Your task to perform on an android device: Open location settings Image 0: 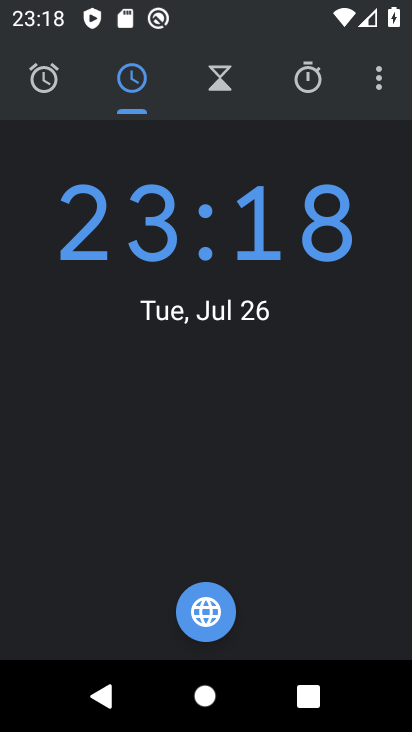
Step 0: press back button
Your task to perform on an android device: Open location settings Image 1: 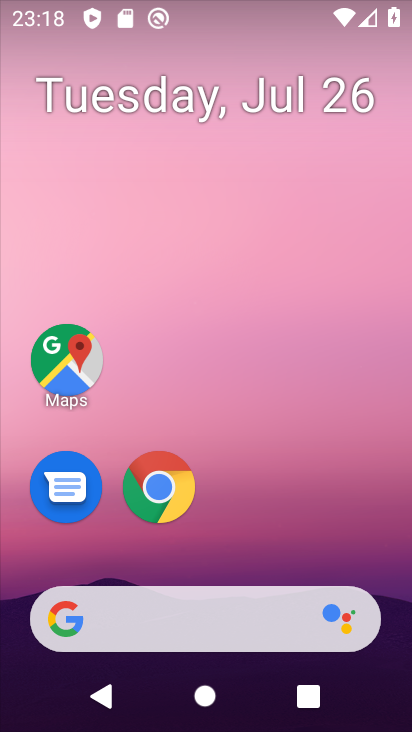
Step 1: drag from (258, 545) to (306, 12)
Your task to perform on an android device: Open location settings Image 2: 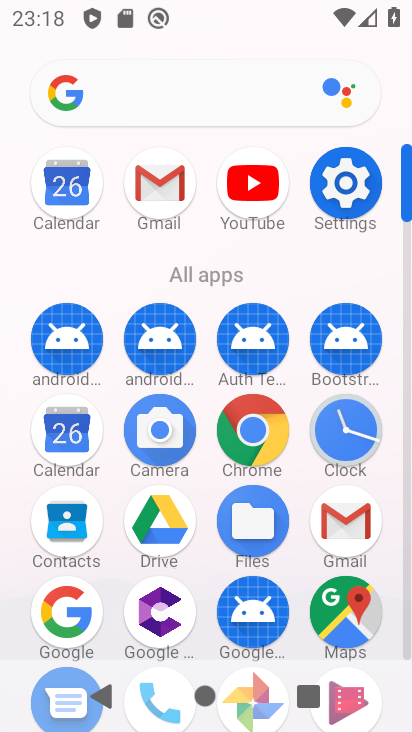
Step 2: click (327, 179)
Your task to perform on an android device: Open location settings Image 3: 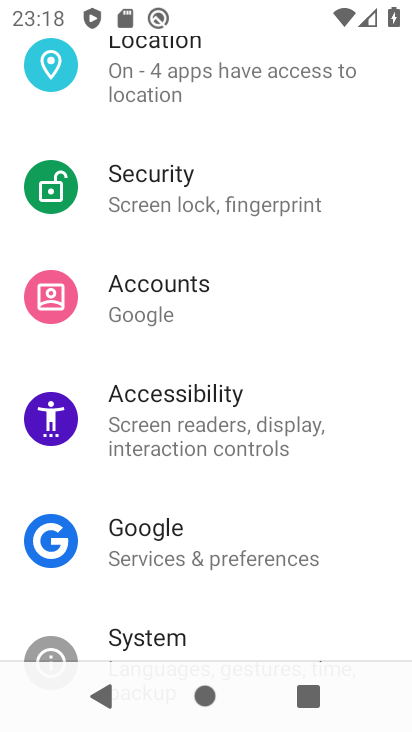
Step 3: click (159, 70)
Your task to perform on an android device: Open location settings Image 4: 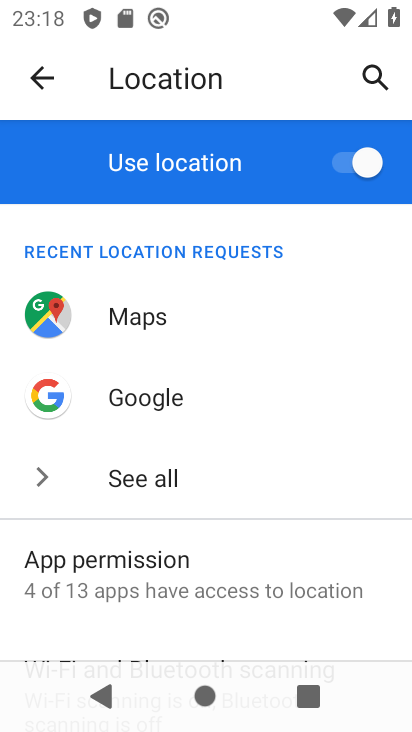
Step 4: task complete